Your task to perform on an android device: Go to ESPN.com Image 0: 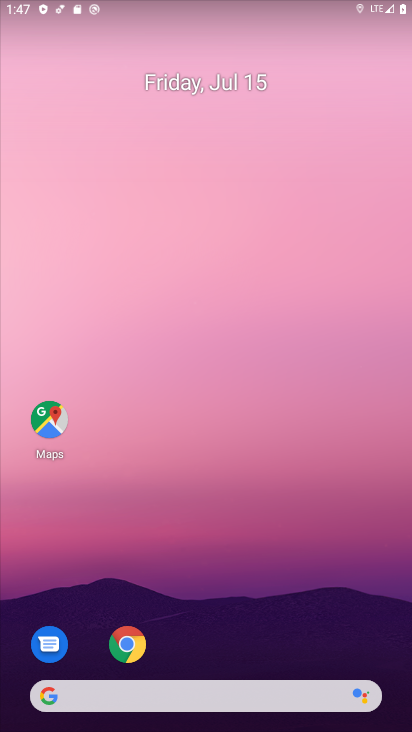
Step 0: drag from (374, 667) to (278, 39)
Your task to perform on an android device: Go to ESPN.com Image 1: 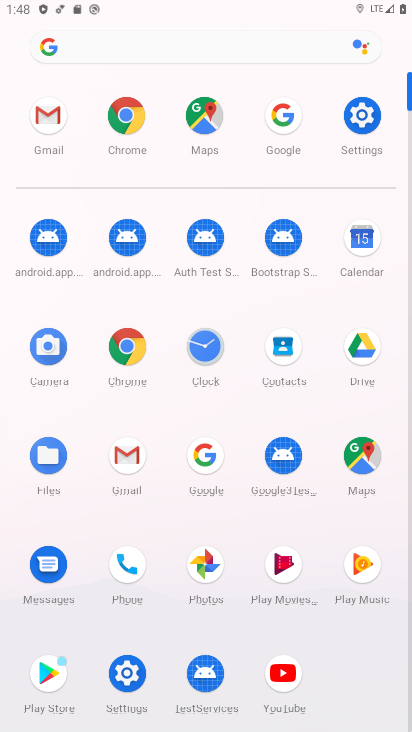
Step 1: click (198, 450)
Your task to perform on an android device: Go to ESPN.com Image 2: 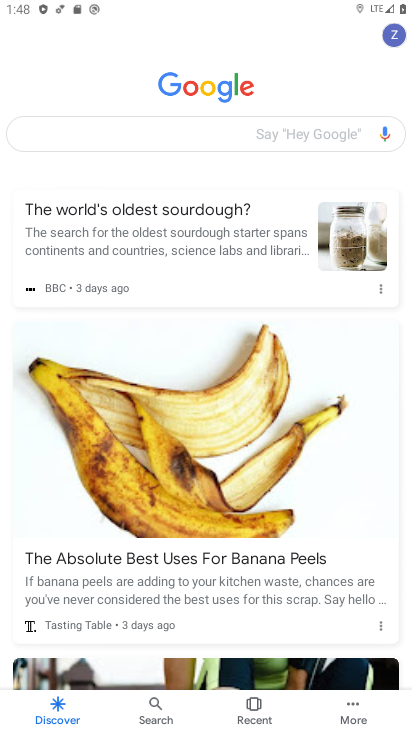
Step 2: click (134, 134)
Your task to perform on an android device: Go to ESPN.com Image 3: 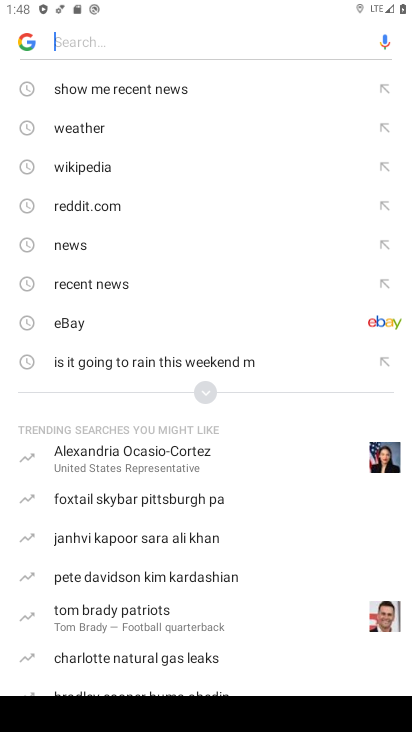
Step 3: type "ESPN.com"
Your task to perform on an android device: Go to ESPN.com Image 4: 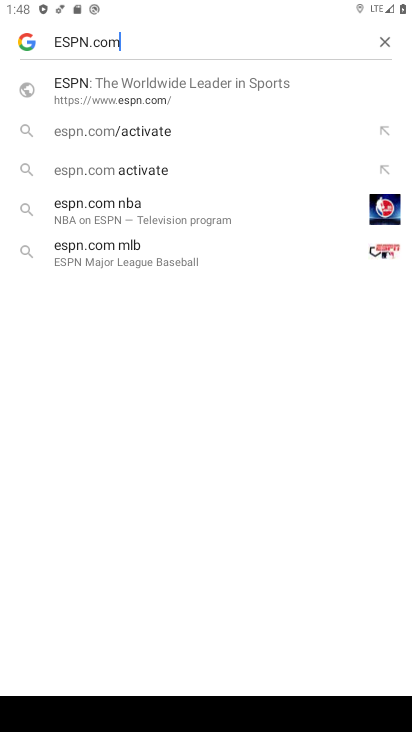
Step 4: click (140, 103)
Your task to perform on an android device: Go to ESPN.com Image 5: 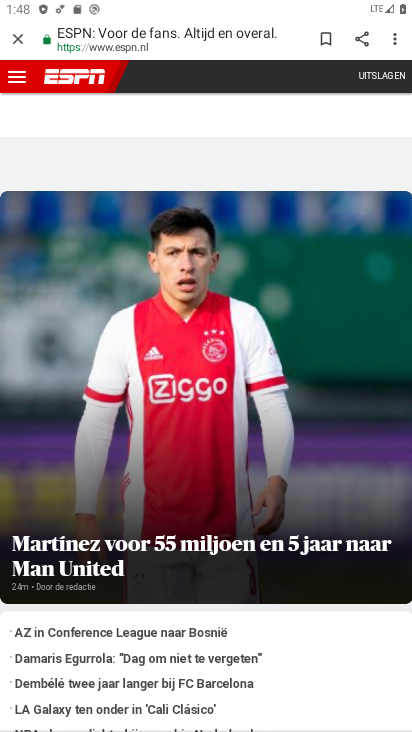
Step 5: task complete